Your task to perform on an android device: Search for the best vacuum on Walmart Image 0: 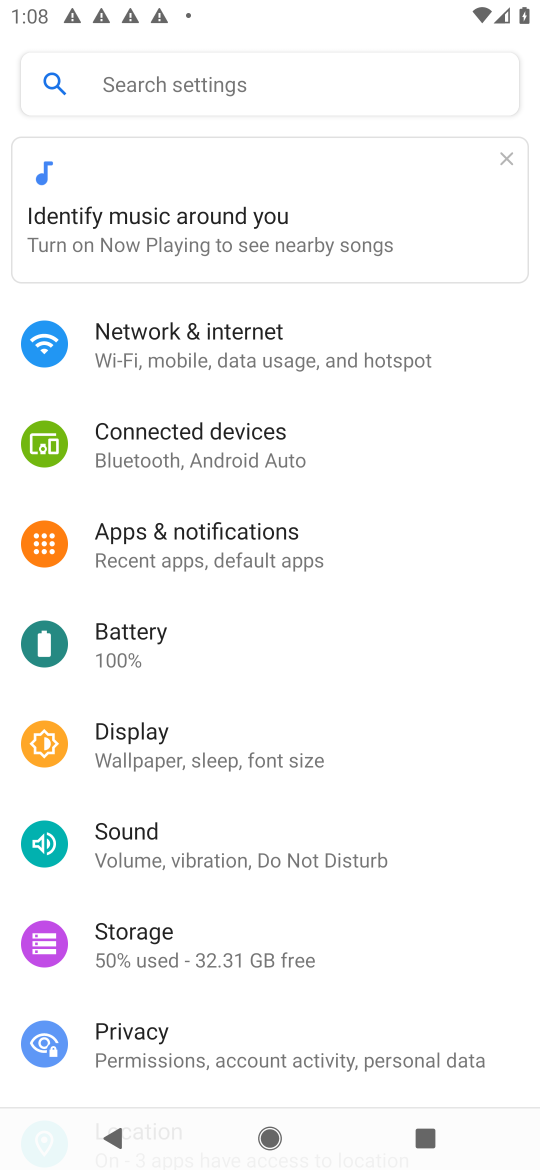
Step 0: press home button
Your task to perform on an android device: Search for the best vacuum on Walmart Image 1: 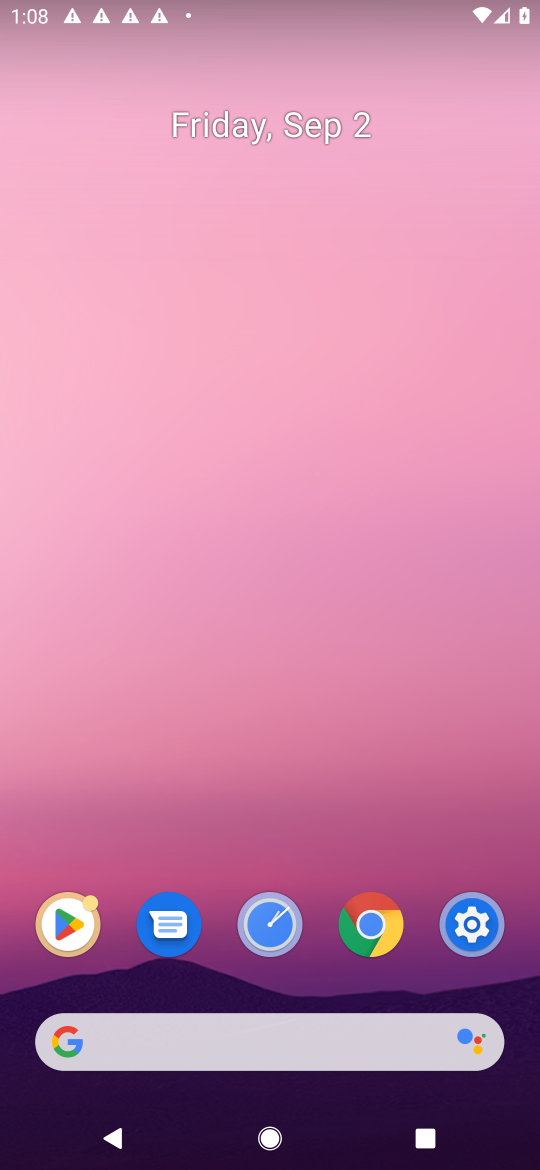
Step 1: click (248, 1032)
Your task to perform on an android device: Search for the best vacuum on Walmart Image 2: 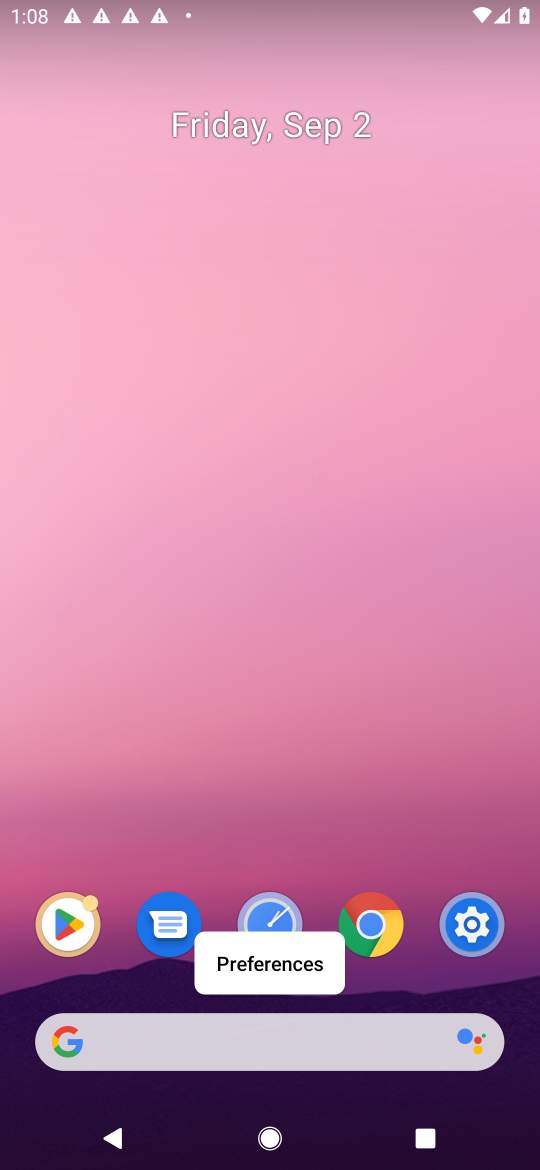
Step 2: click (263, 1054)
Your task to perform on an android device: Search for the best vacuum on Walmart Image 3: 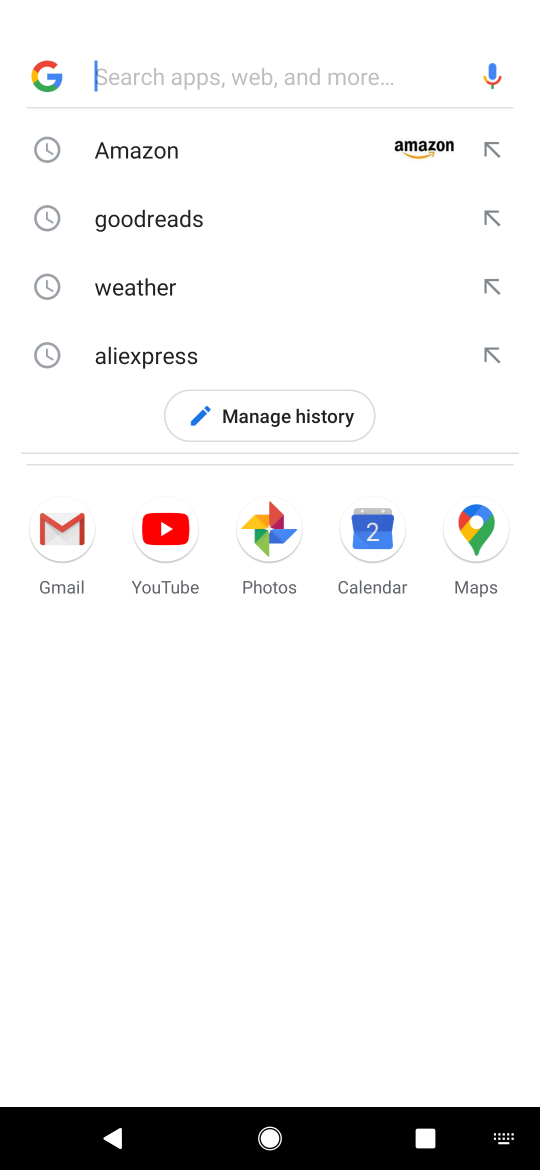
Step 3: type "Walmart"
Your task to perform on an android device: Search for the best vacuum on Walmart Image 4: 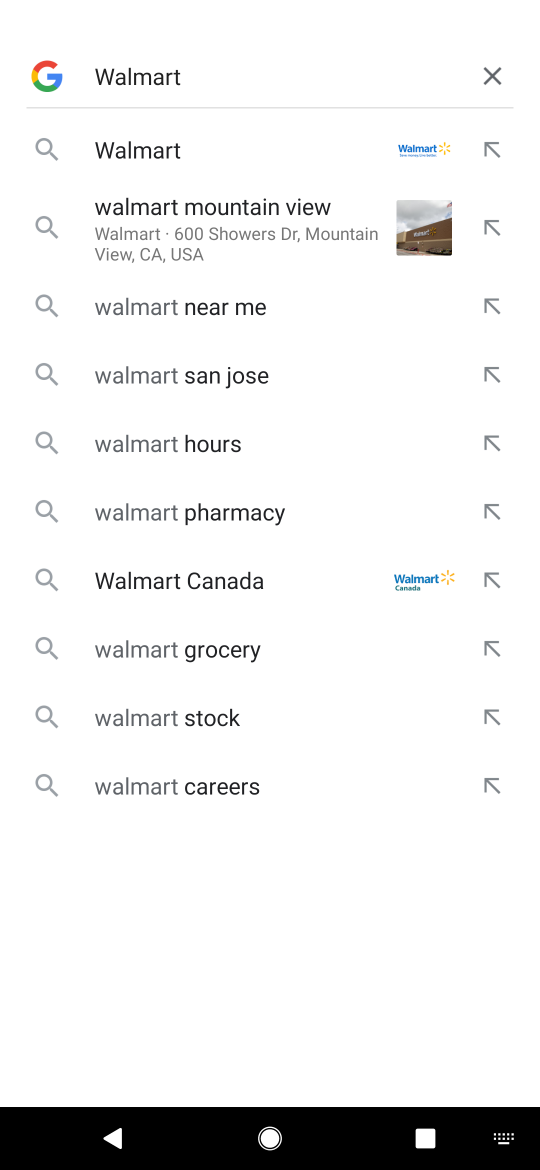
Step 4: type ""
Your task to perform on an android device: Search for the best vacuum on Walmart Image 5: 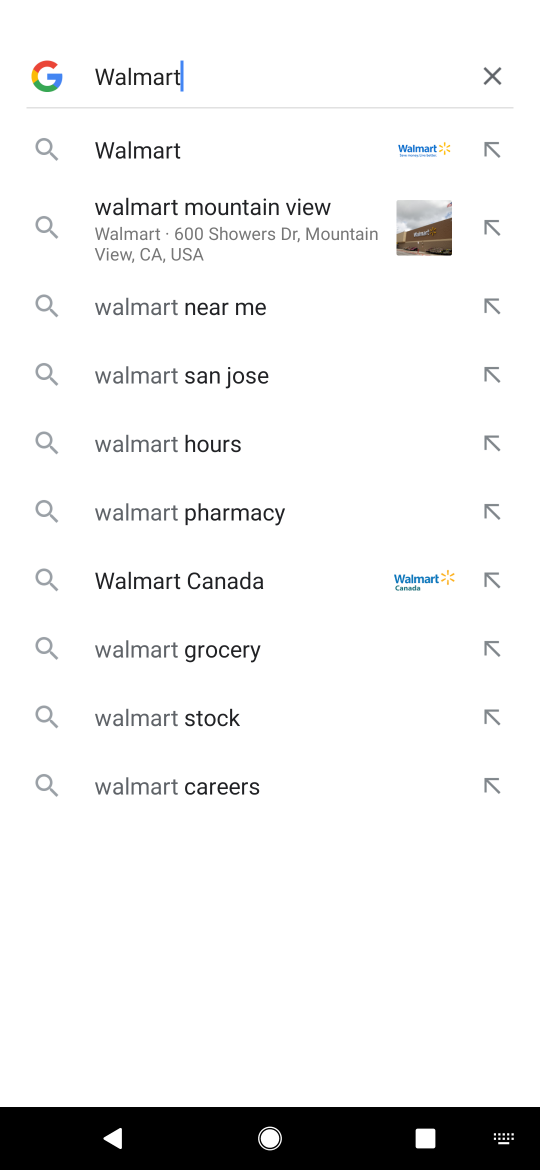
Step 5: click (208, 148)
Your task to perform on an android device: Search for the best vacuum on Walmart Image 6: 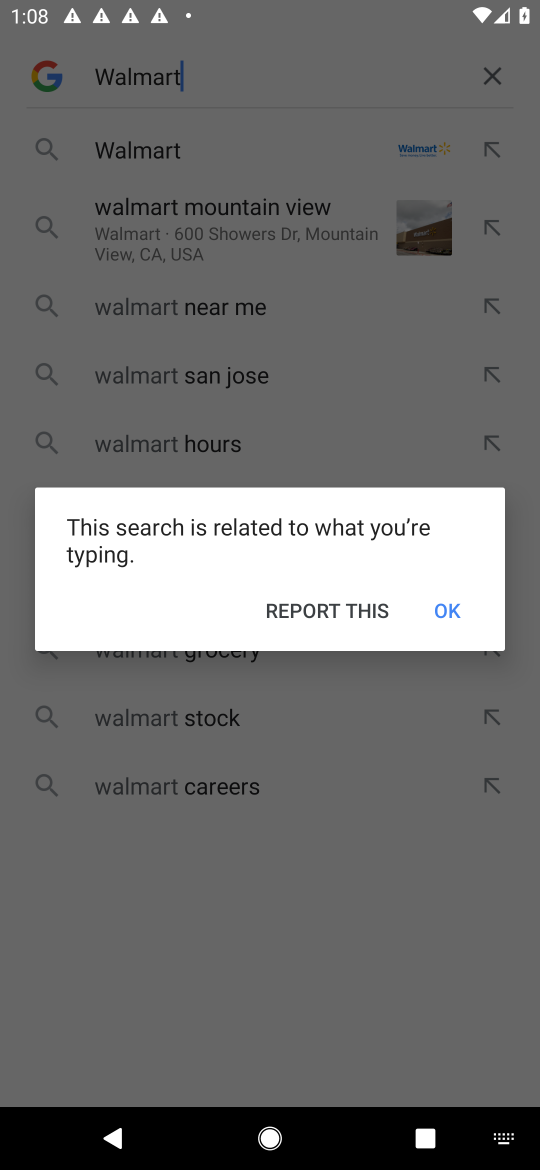
Step 6: click (460, 622)
Your task to perform on an android device: Search for the best vacuum on Walmart Image 7: 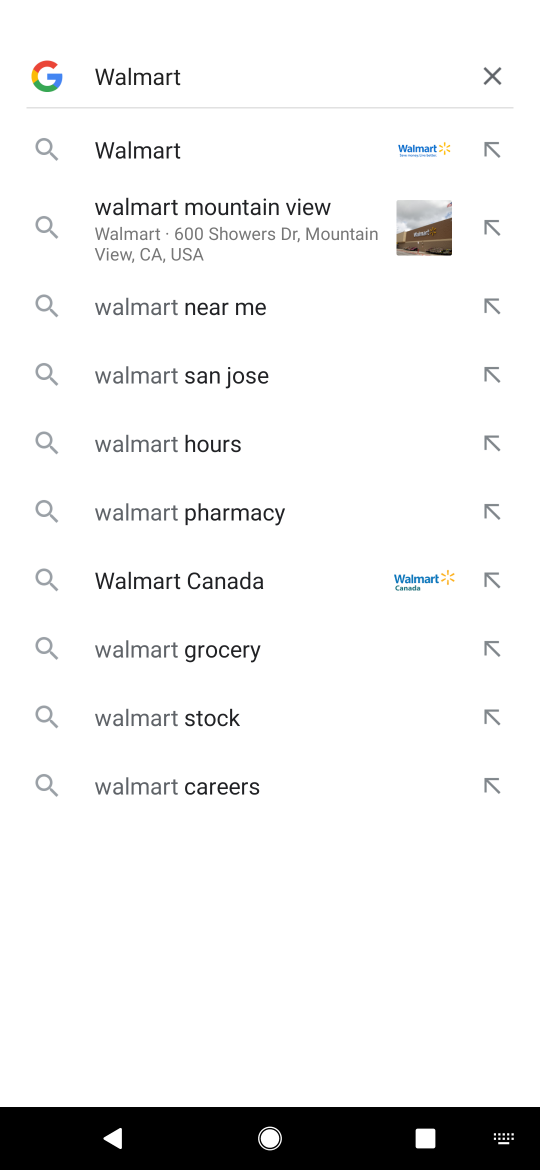
Step 7: click (176, 150)
Your task to perform on an android device: Search for the best vacuum on Walmart Image 8: 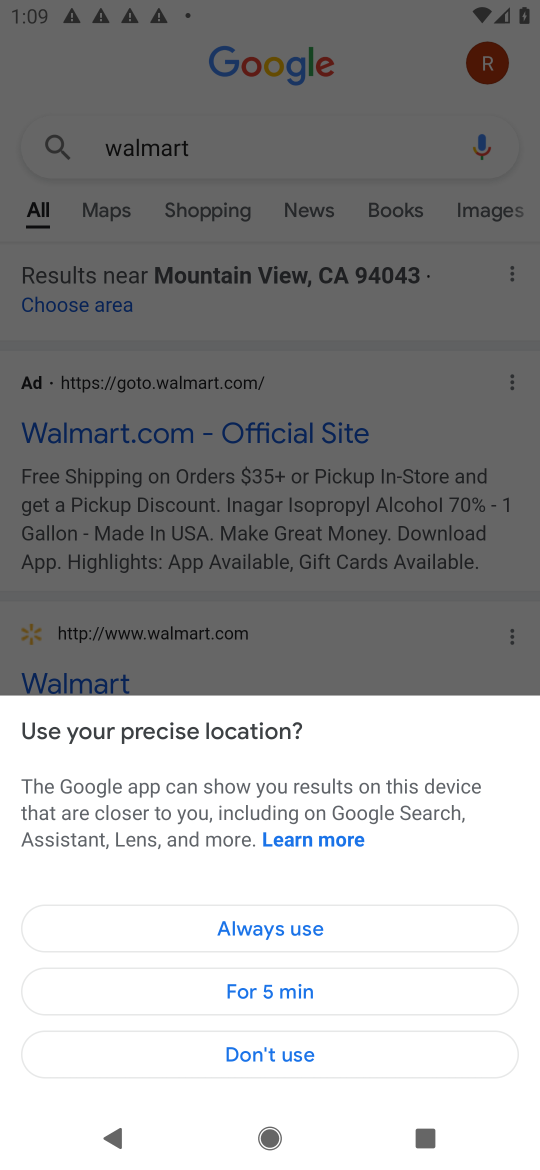
Step 8: click (262, 555)
Your task to perform on an android device: Search for the best vacuum on Walmart Image 9: 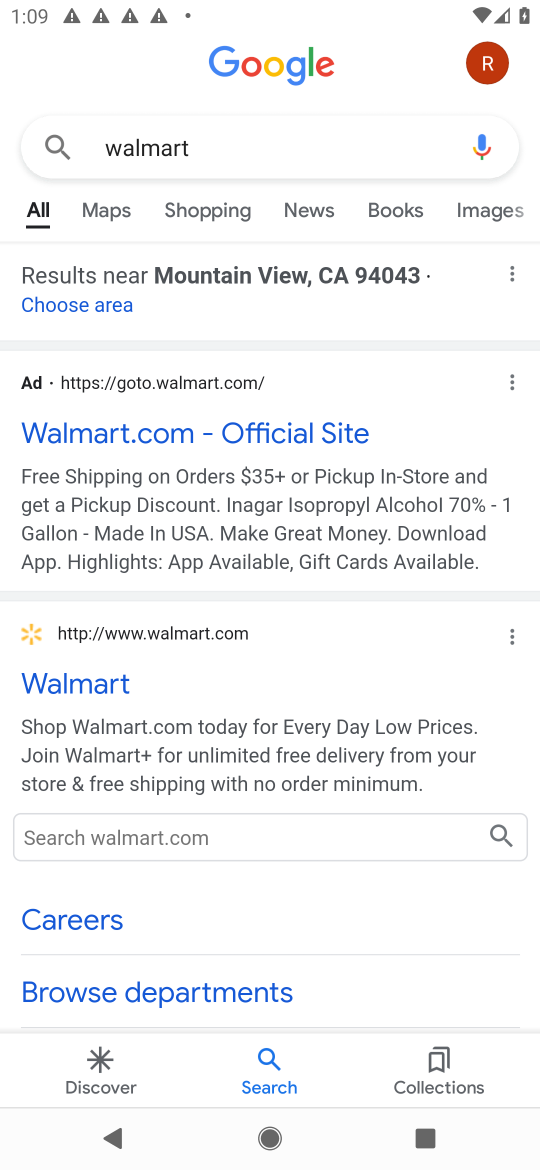
Step 9: click (115, 666)
Your task to perform on an android device: Search for the best vacuum on Walmart Image 10: 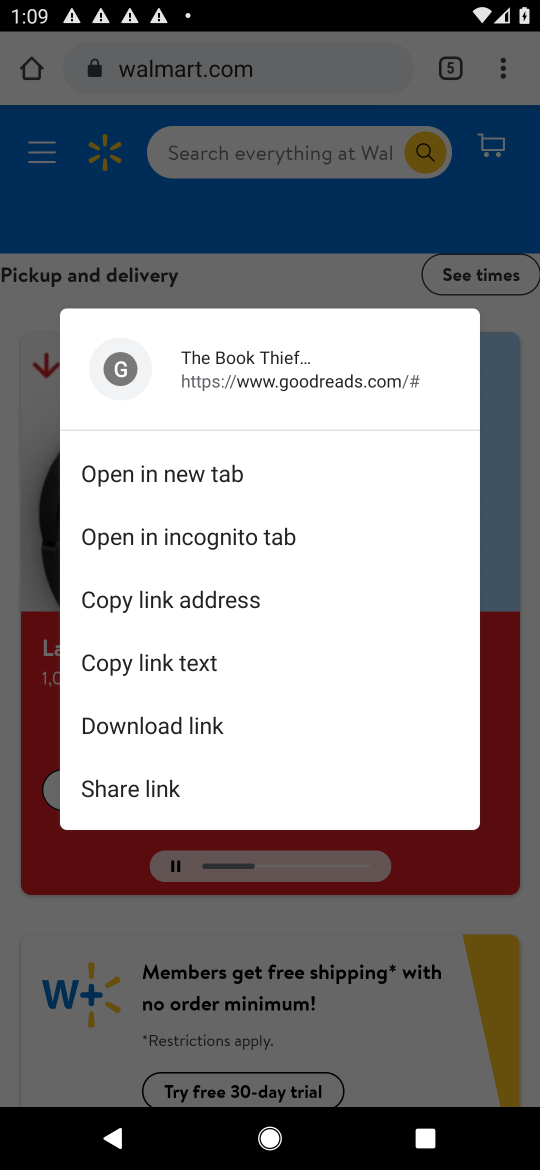
Step 10: click (304, 249)
Your task to perform on an android device: Search for the best vacuum on Walmart Image 11: 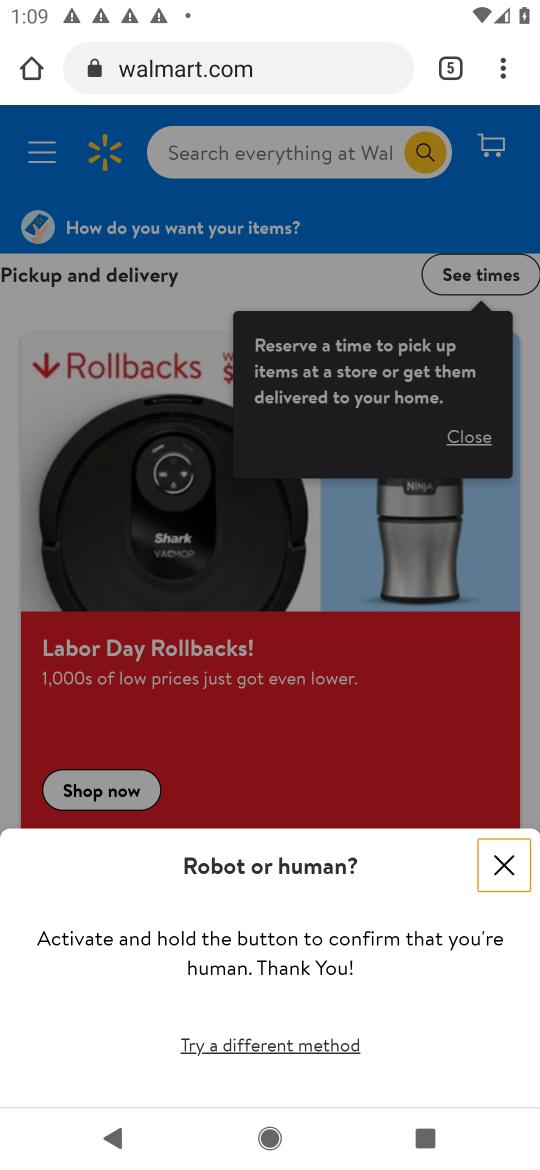
Step 11: click (207, 149)
Your task to perform on an android device: Search for the best vacuum on Walmart Image 12: 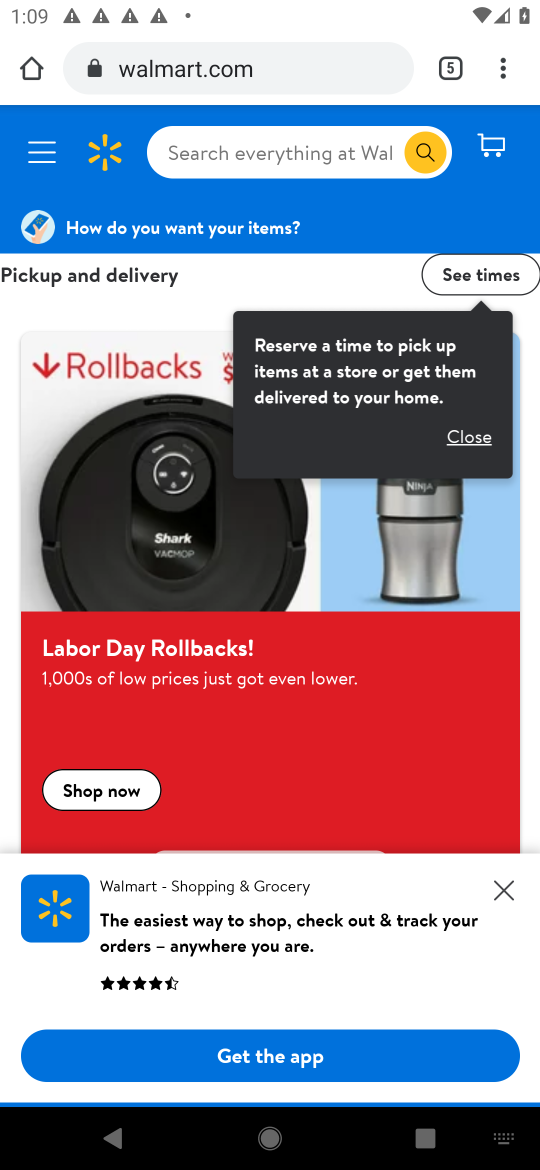
Step 12: click (205, 149)
Your task to perform on an android device: Search for the best vacuum on Walmart Image 13: 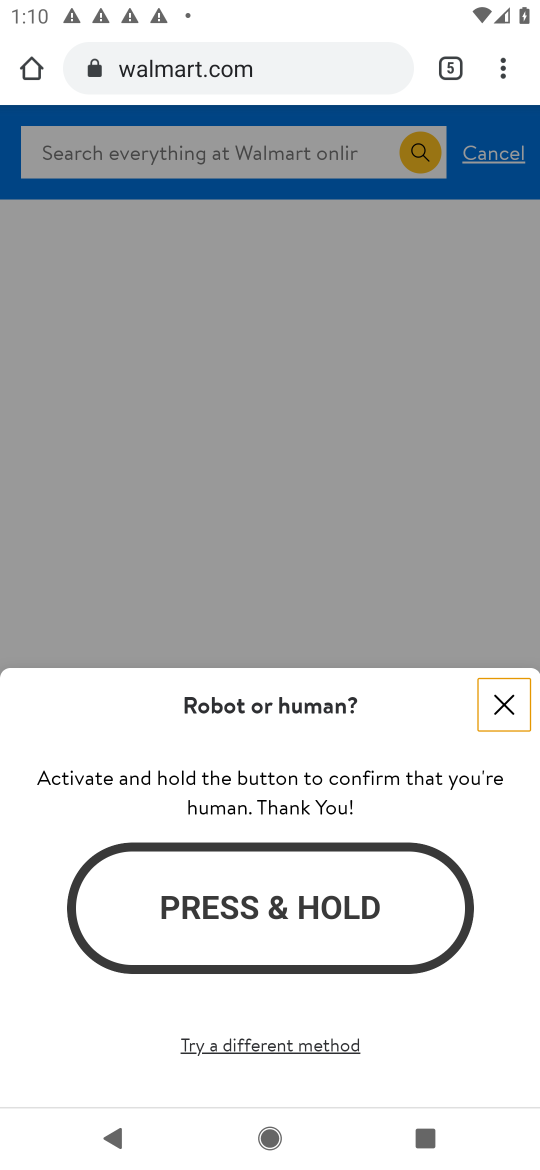
Step 13: type "best vacuum"
Your task to perform on an android device: Search for the best vacuum on Walmart Image 14: 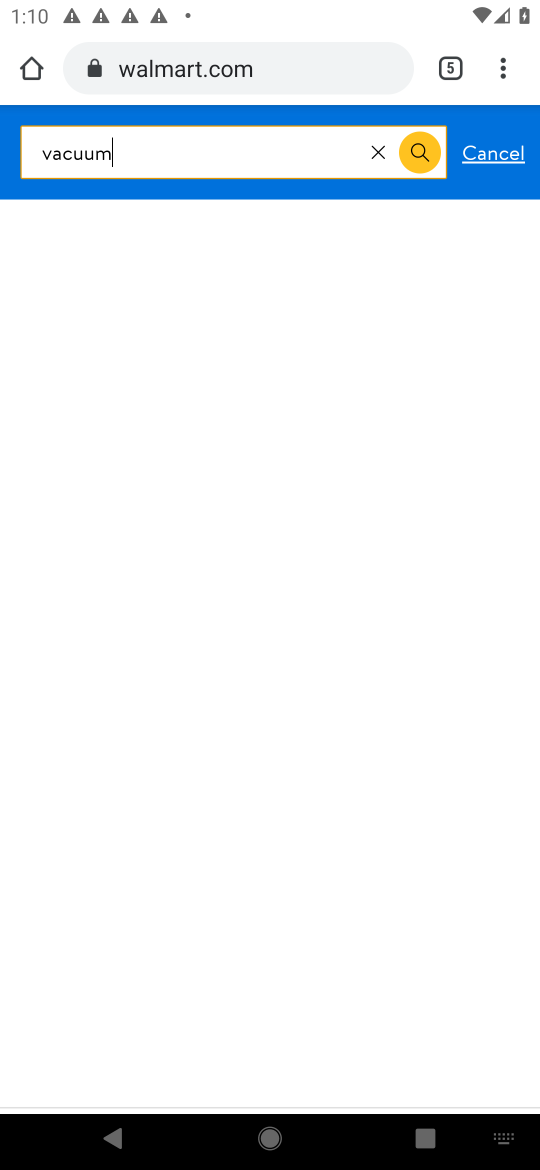
Step 14: type ""
Your task to perform on an android device: Search for the best vacuum on Walmart Image 15: 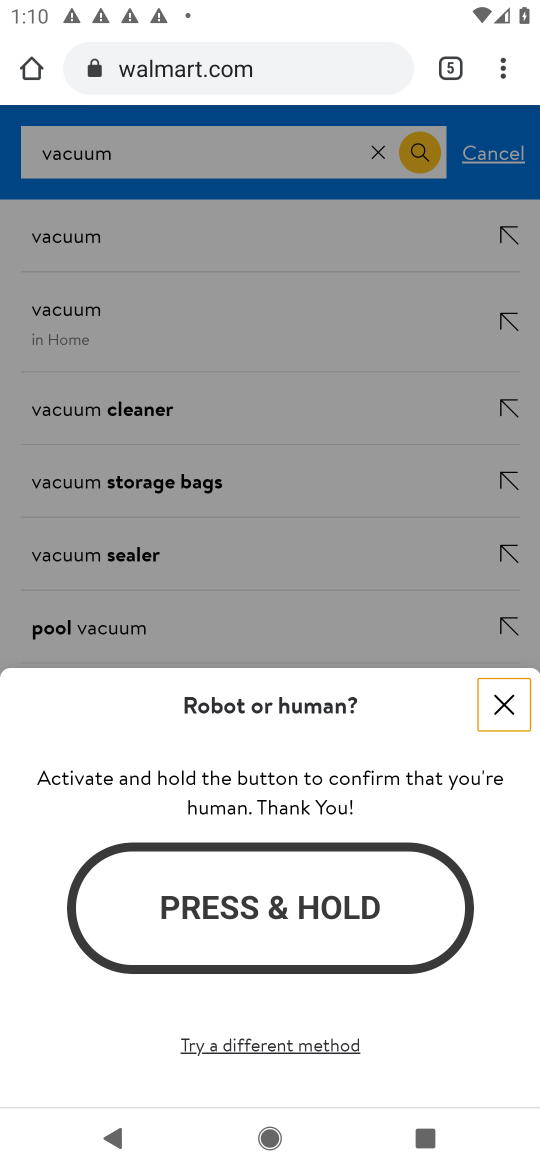
Step 15: click (504, 707)
Your task to perform on an android device: Search for the best vacuum on Walmart Image 16: 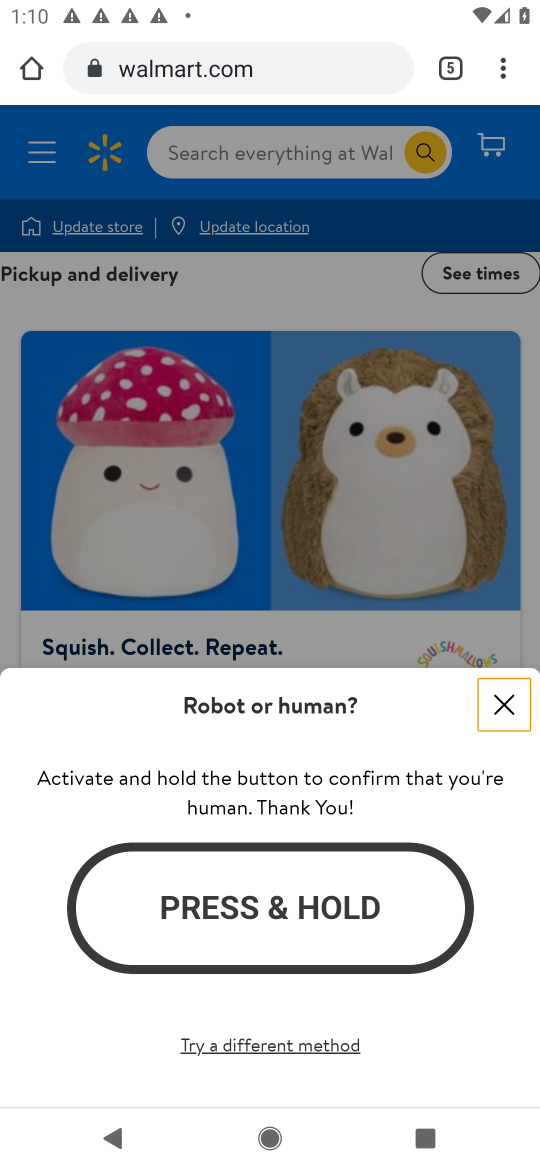
Step 16: click (509, 701)
Your task to perform on an android device: Search for the best vacuum on Walmart Image 17: 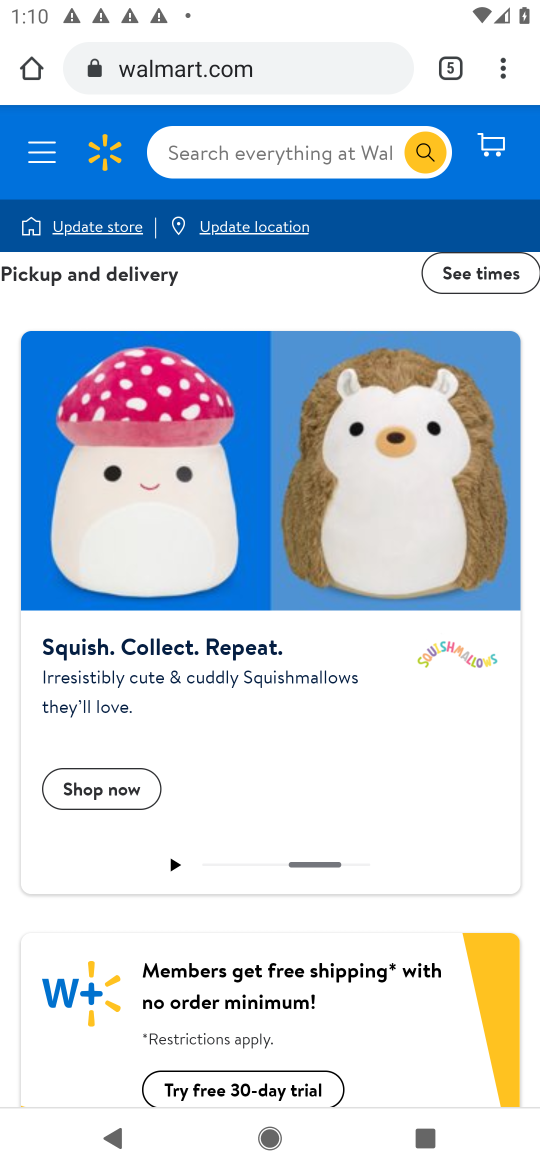
Step 17: click (247, 154)
Your task to perform on an android device: Search for the best vacuum on Walmart Image 18: 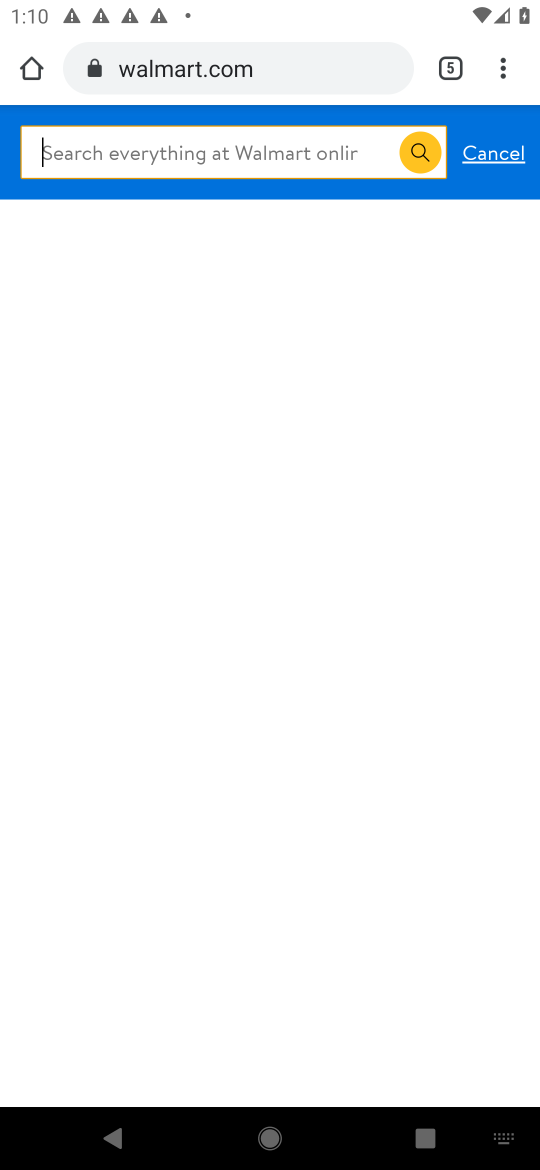
Step 18: type "best vacuum"
Your task to perform on an android device: Search for the best vacuum on Walmart Image 19: 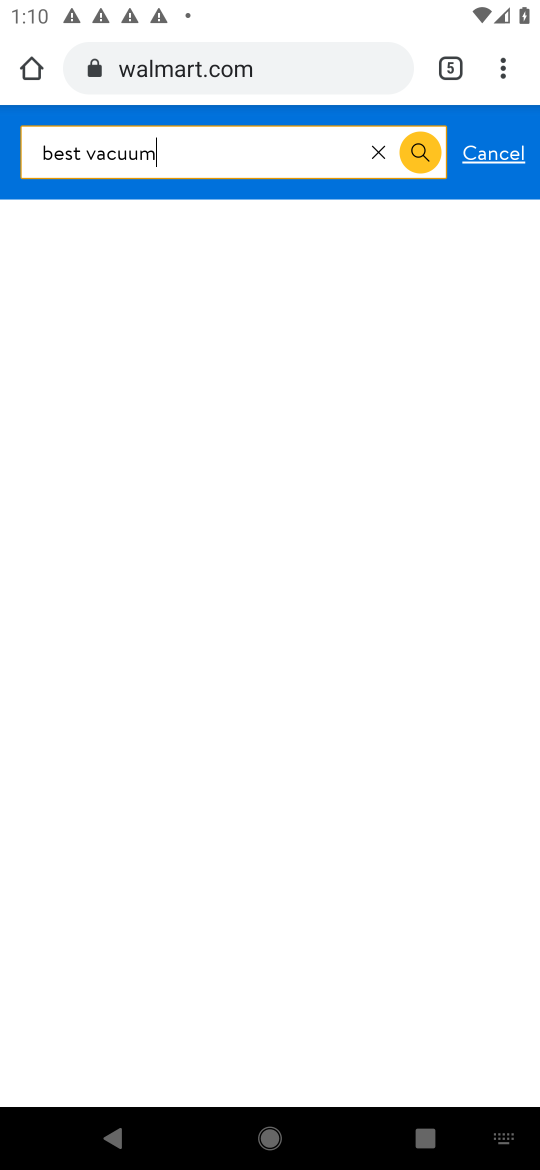
Step 19: type ""
Your task to perform on an android device: Search for the best vacuum on Walmart Image 20: 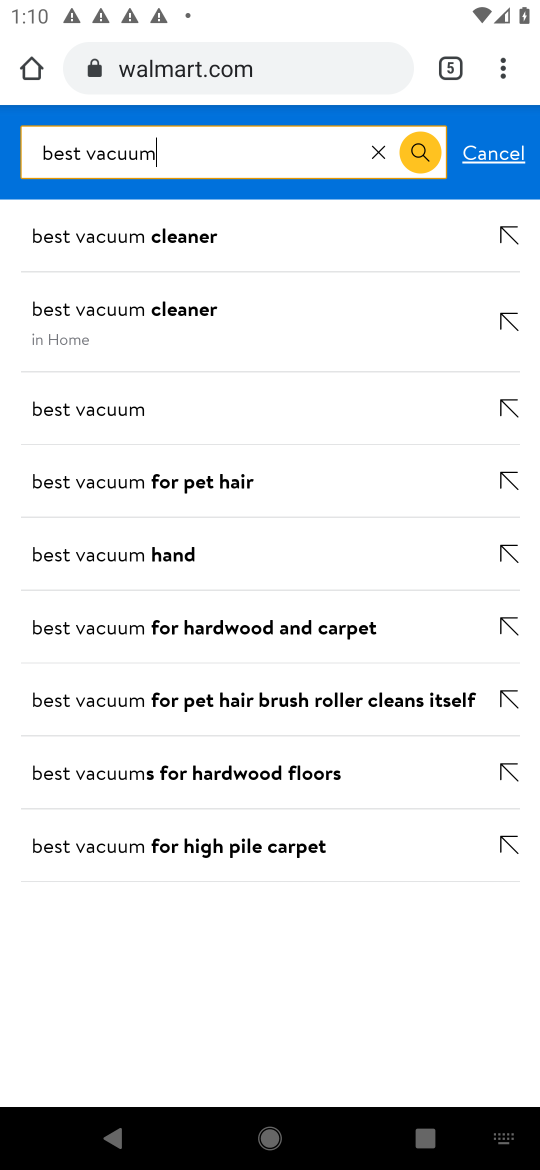
Step 20: click (222, 248)
Your task to perform on an android device: Search for the best vacuum on Walmart Image 21: 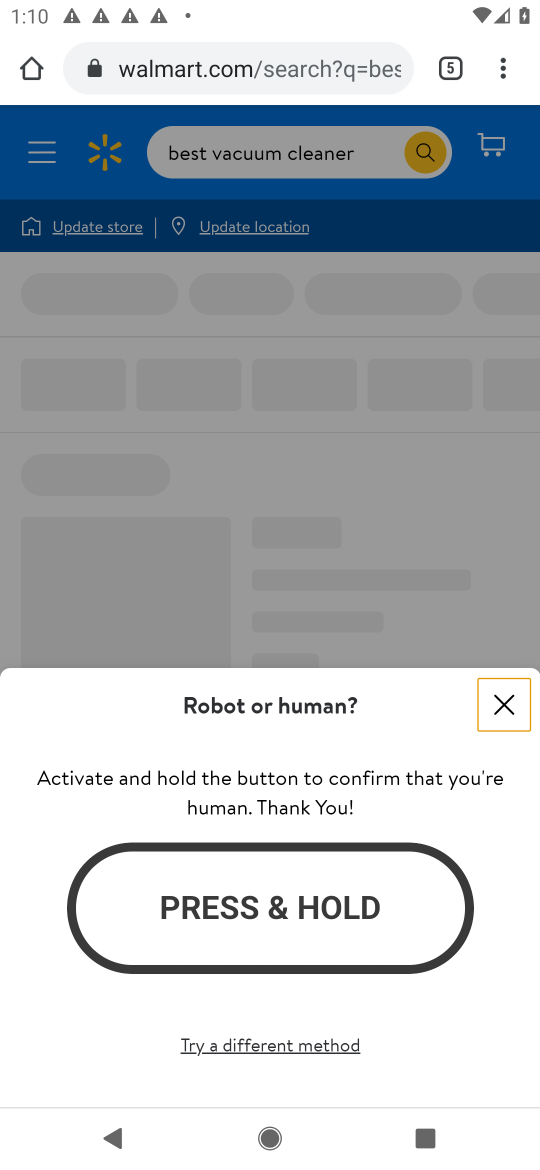
Step 21: click (499, 721)
Your task to perform on an android device: Search for the best vacuum on Walmart Image 22: 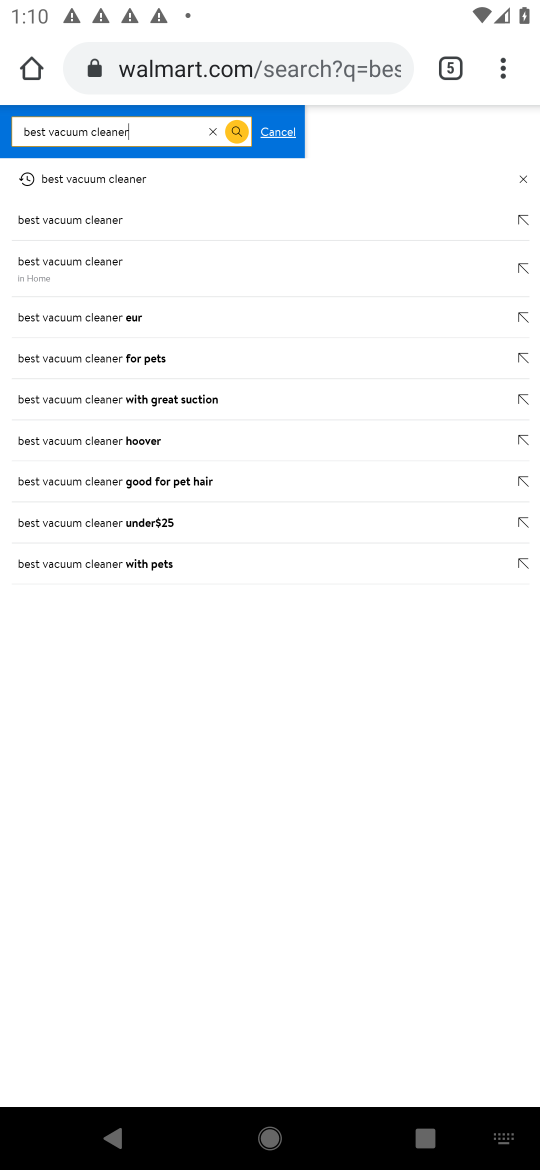
Step 22: task complete